Your task to perform on an android device: turn on sleep mode Image 0: 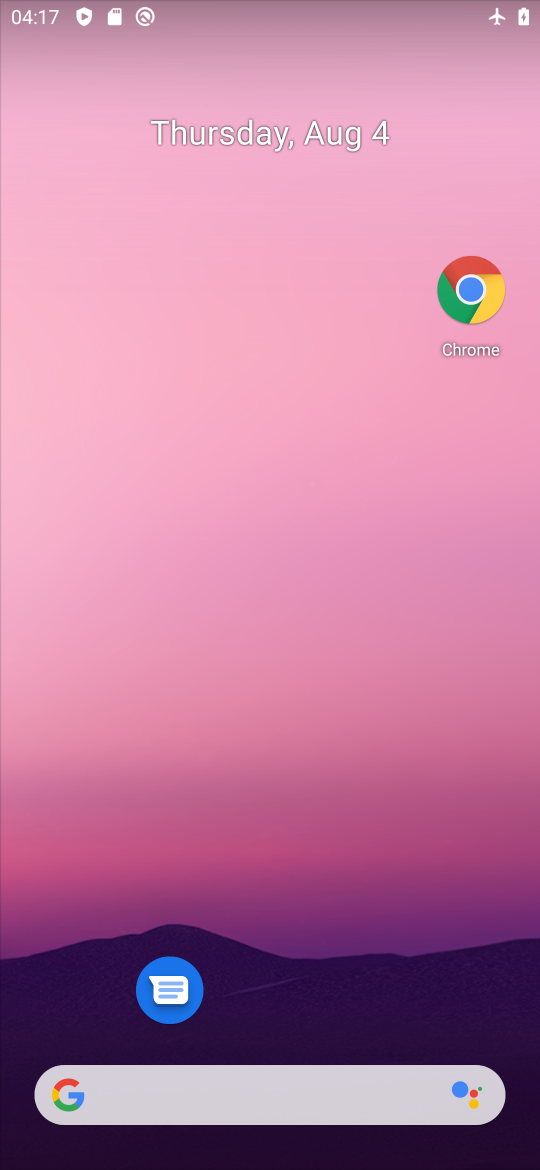
Step 0: drag from (311, 1007) to (348, 22)
Your task to perform on an android device: turn on sleep mode Image 1: 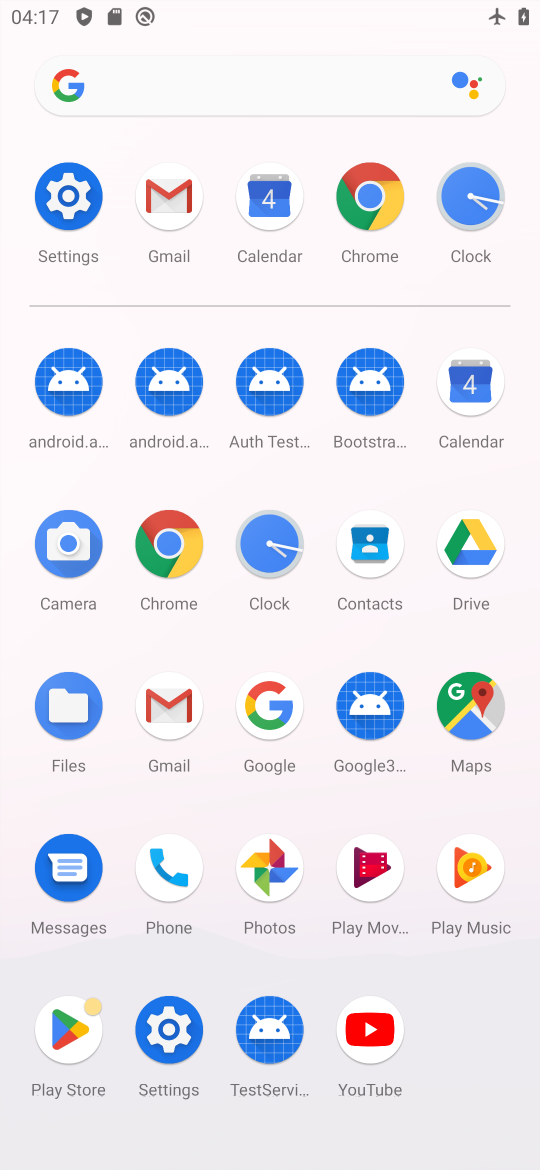
Step 1: click (66, 234)
Your task to perform on an android device: turn on sleep mode Image 2: 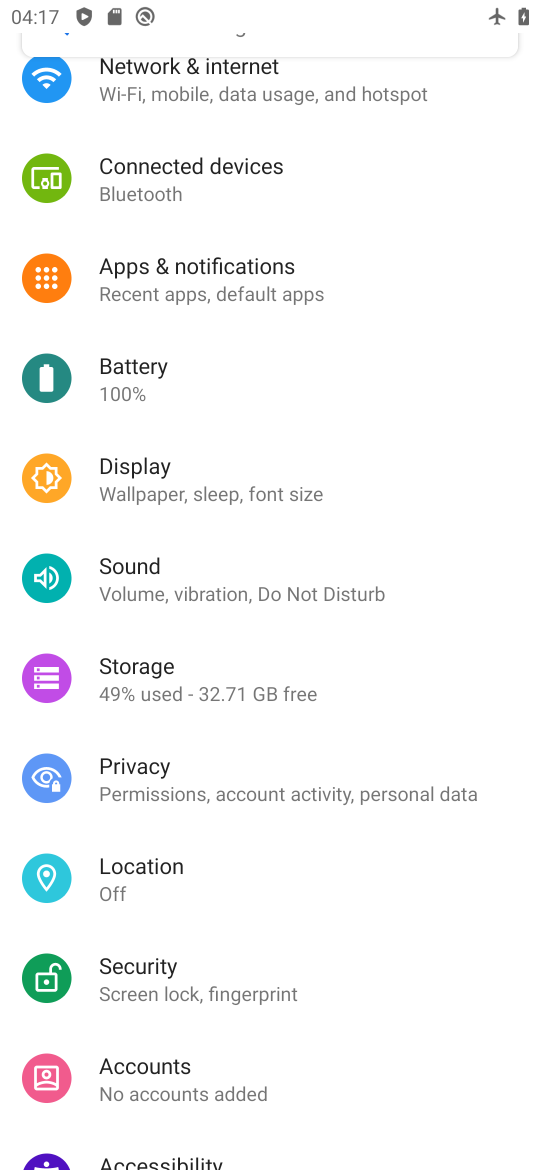
Step 2: click (212, 492)
Your task to perform on an android device: turn on sleep mode Image 3: 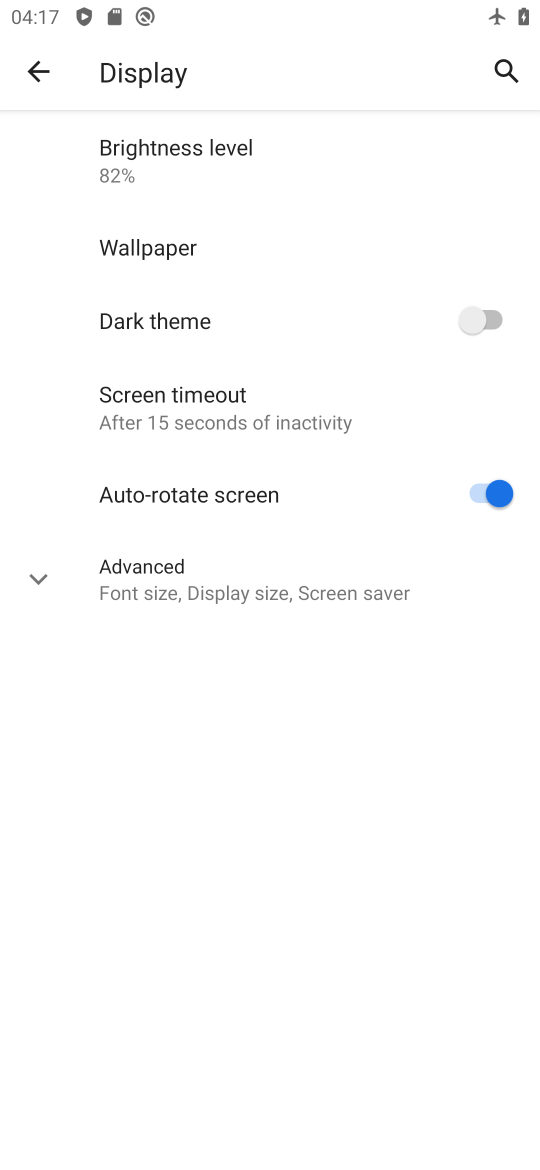
Step 3: task complete